Your task to perform on an android device: check data usage Image 0: 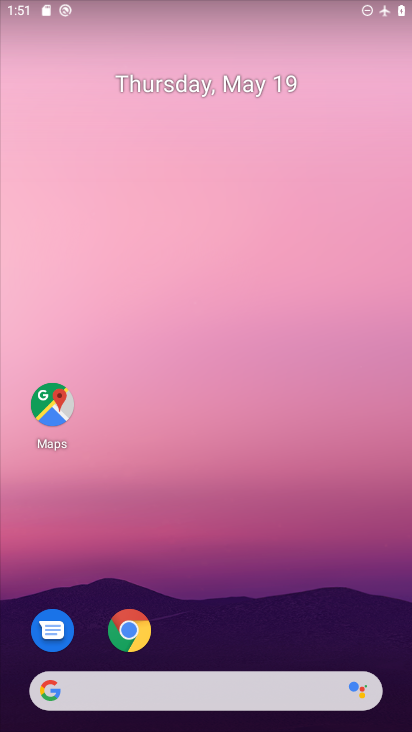
Step 0: drag from (215, 666) to (135, 118)
Your task to perform on an android device: check data usage Image 1: 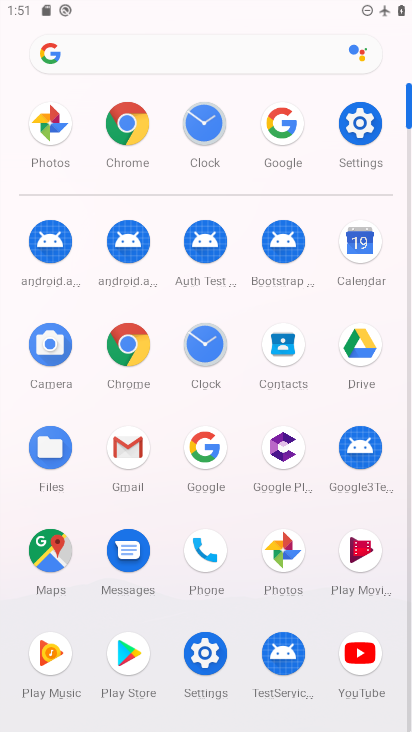
Step 1: click (203, 653)
Your task to perform on an android device: check data usage Image 2: 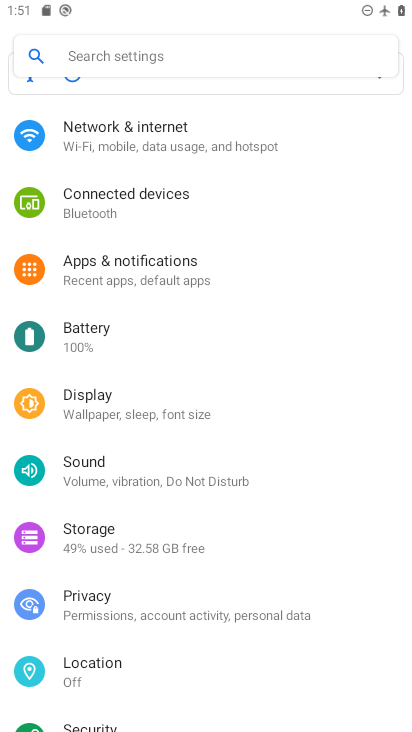
Step 2: click (144, 136)
Your task to perform on an android device: check data usage Image 3: 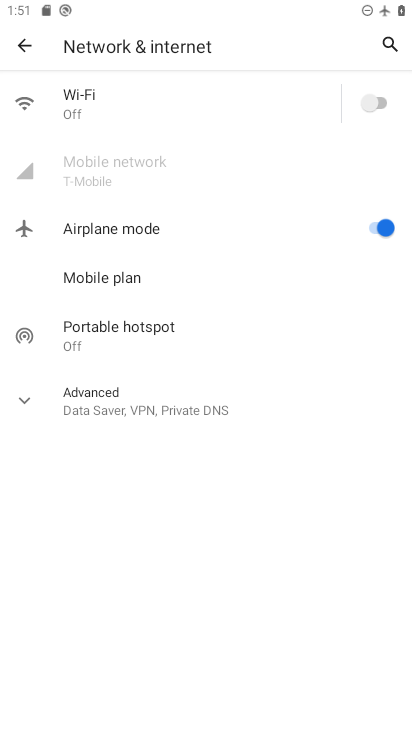
Step 3: click (105, 156)
Your task to perform on an android device: check data usage Image 4: 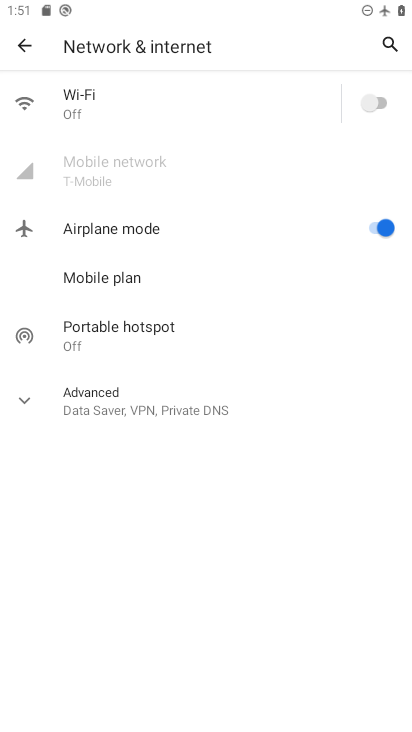
Step 4: task complete